Your task to perform on an android device: Open network settings Image 0: 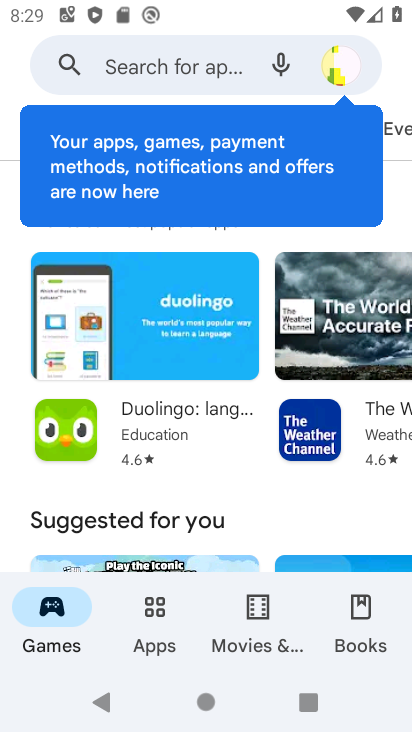
Step 0: press home button
Your task to perform on an android device: Open network settings Image 1: 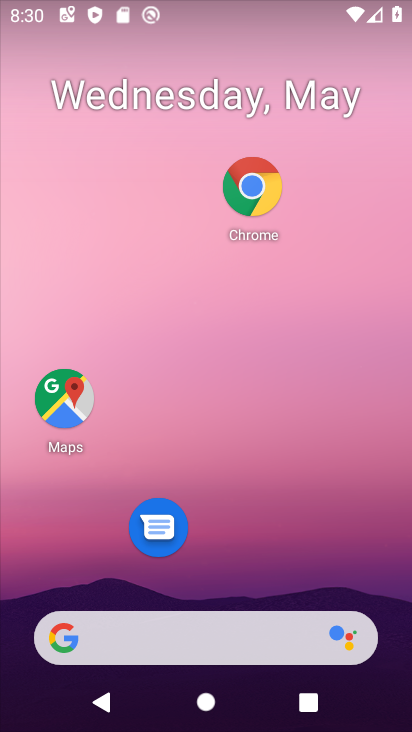
Step 1: drag from (377, 654) to (382, 33)
Your task to perform on an android device: Open network settings Image 2: 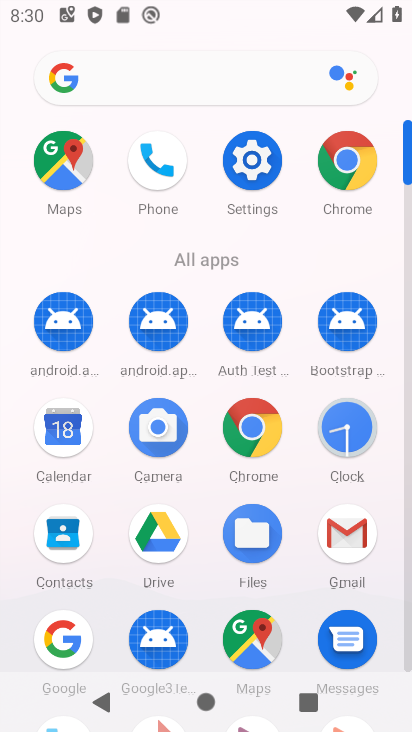
Step 2: click (268, 162)
Your task to perform on an android device: Open network settings Image 3: 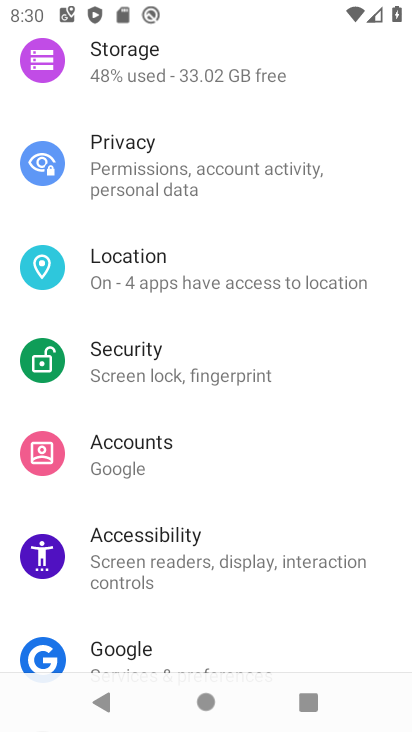
Step 3: drag from (273, 176) to (260, 462)
Your task to perform on an android device: Open network settings Image 4: 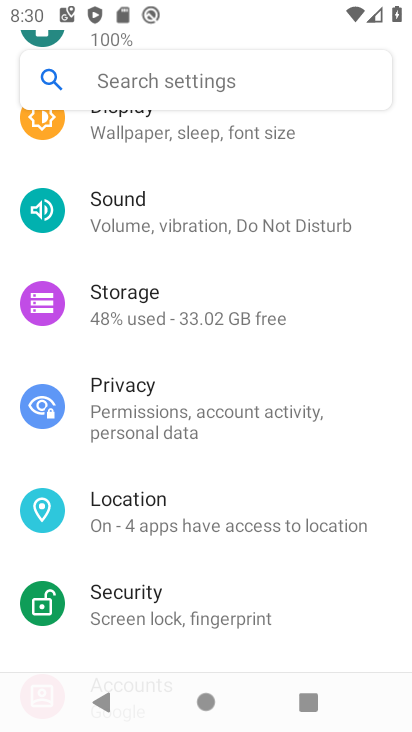
Step 4: drag from (268, 262) to (228, 523)
Your task to perform on an android device: Open network settings Image 5: 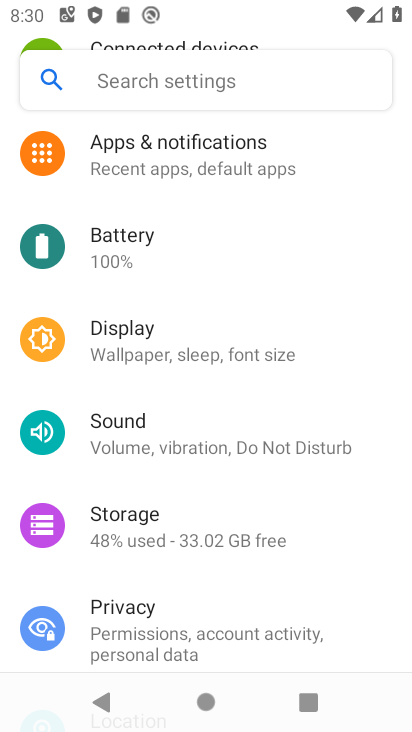
Step 5: drag from (243, 267) to (241, 634)
Your task to perform on an android device: Open network settings Image 6: 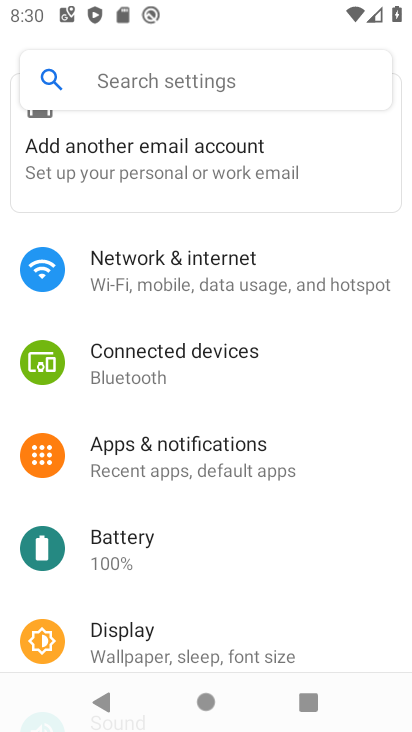
Step 6: click (263, 272)
Your task to perform on an android device: Open network settings Image 7: 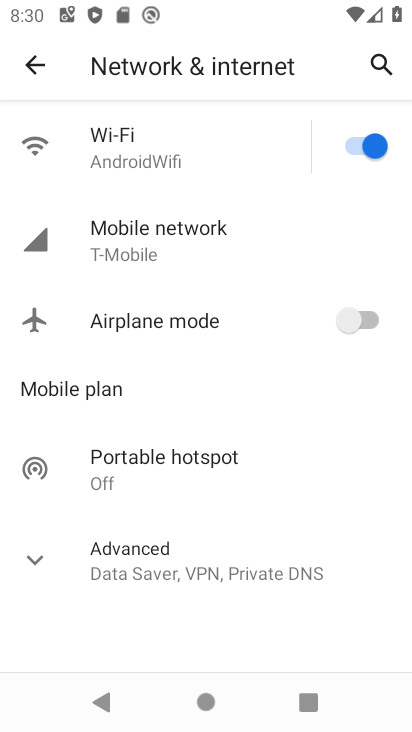
Step 7: task complete